Your task to perform on an android device: Play the last video I watched on Youtube Image 0: 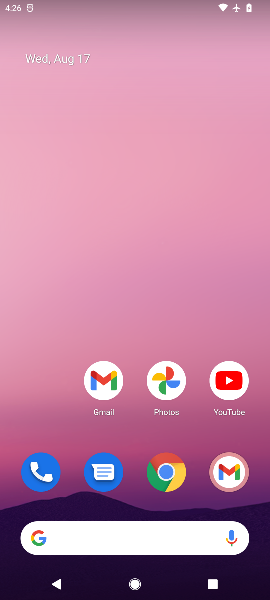
Step 0: drag from (91, 514) to (120, 55)
Your task to perform on an android device: Play the last video I watched on Youtube Image 1: 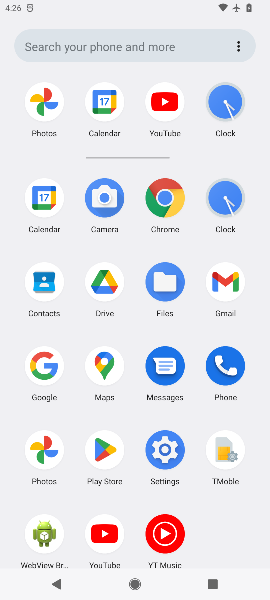
Step 1: click (99, 543)
Your task to perform on an android device: Play the last video I watched on Youtube Image 2: 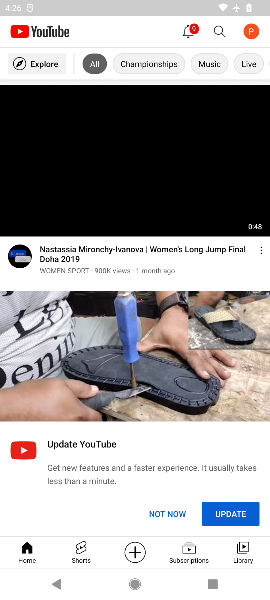
Step 2: click (177, 508)
Your task to perform on an android device: Play the last video I watched on Youtube Image 3: 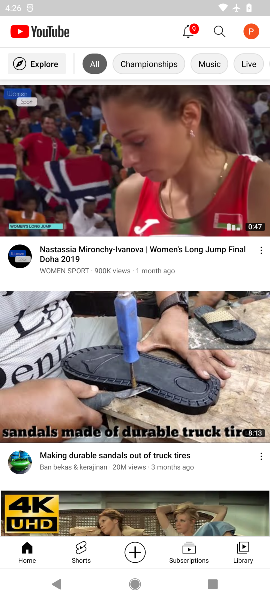
Step 3: click (240, 543)
Your task to perform on an android device: Play the last video I watched on Youtube Image 4: 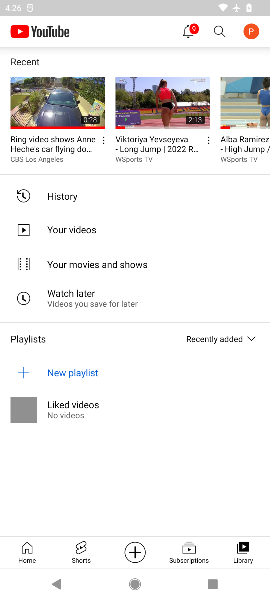
Step 4: click (64, 102)
Your task to perform on an android device: Play the last video I watched on Youtube Image 5: 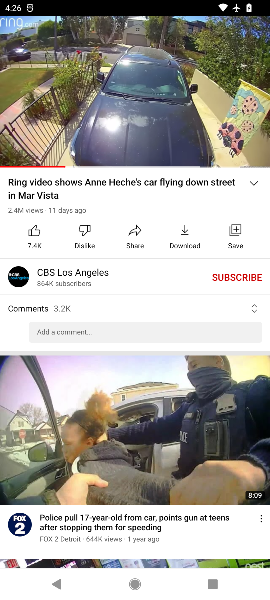
Step 5: task complete